Your task to perform on an android device: turn off notifications in google photos Image 0: 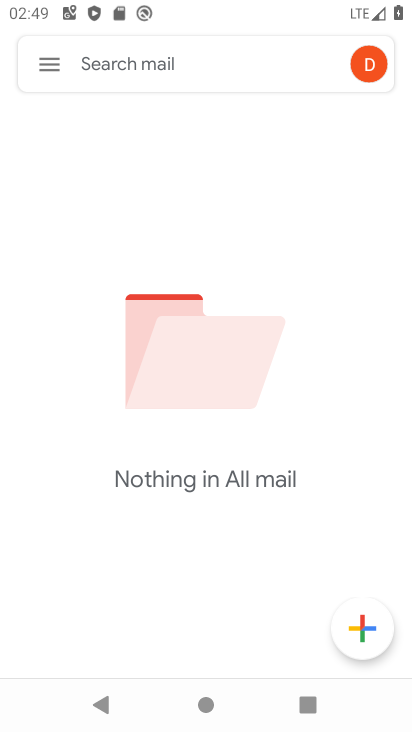
Step 0: drag from (219, 548) to (323, 261)
Your task to perform on an android device: turn off notifications in google photos Image 1: 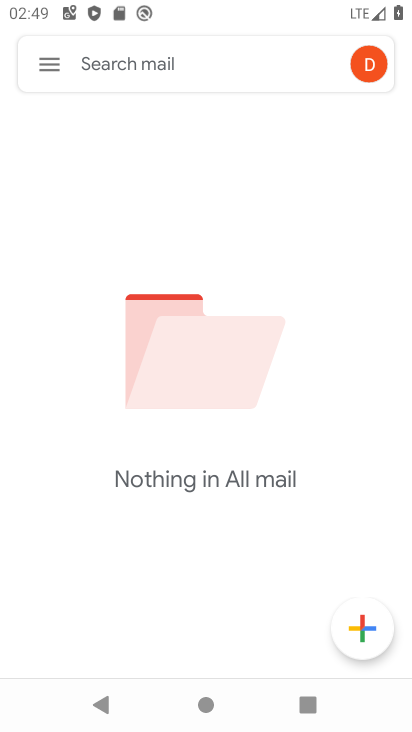
Step 1: press home button
Your task to perform on an android device: turn off notifications in google photos Image 2: 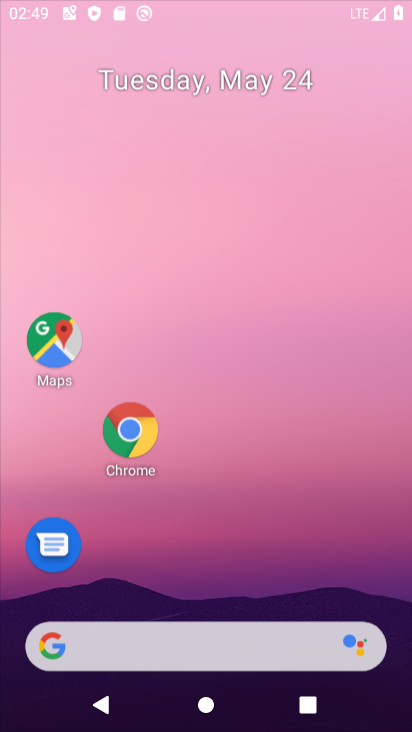
Step 2: drag from (190, 608) to (294, 75)
Your task to perform on an android device: turn off notifications in google photos Image 3: 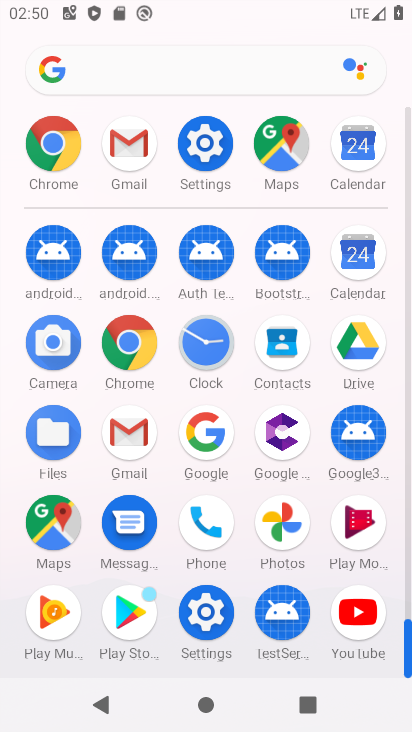
Step 3: click (291, 501)
Your task to perform on an android device: turn off notifications in google photos Image 4: 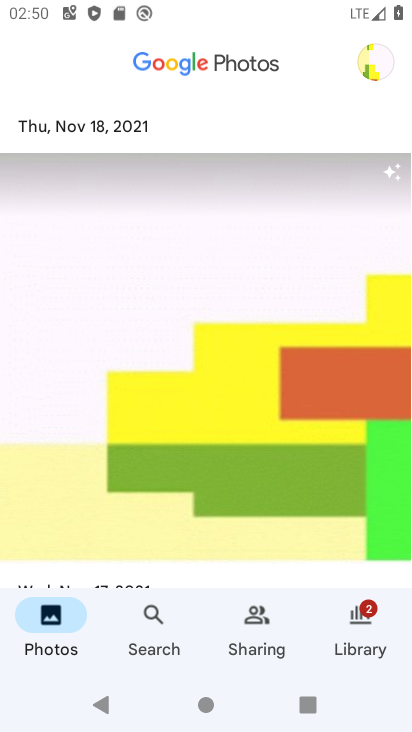
Step 4: press back button
Your task to perform on an android device: turn off notifications in google photos Image 5: 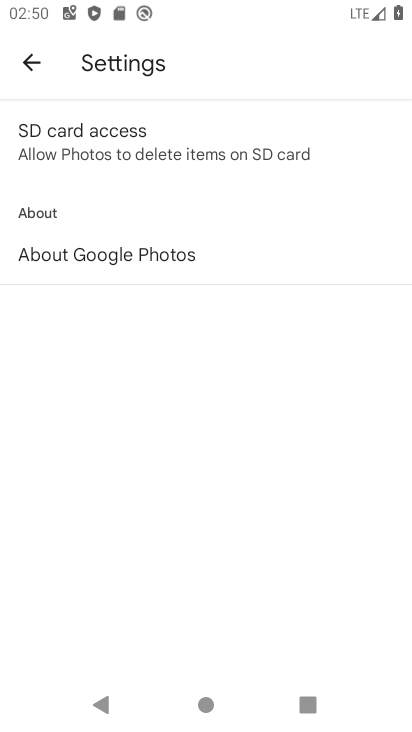
Step 5: press back button
Your task to perform on an android device: turn off notifications in google photos Image 6: 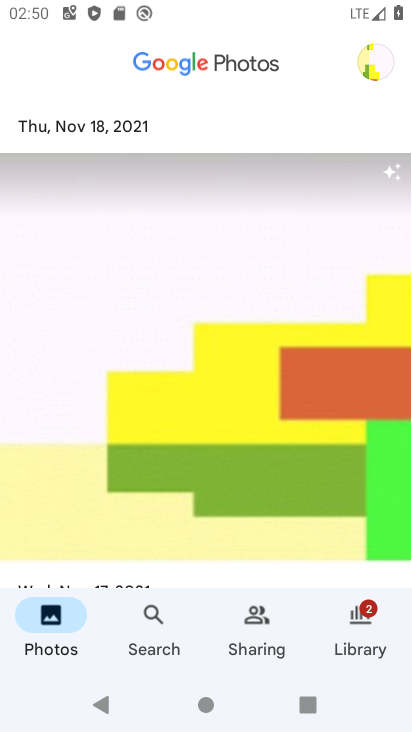
Step 6: click (59, 626)
Your task to perform on an android device: turn off notifications in google photos Image 7: 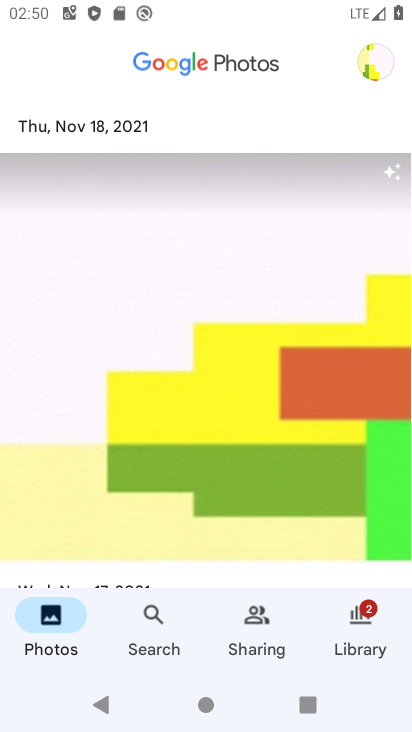
Step 7: drag from (332, 417) to (4, 389)
Your task to perform on an android device: turn off notifications in google photos Image 8: 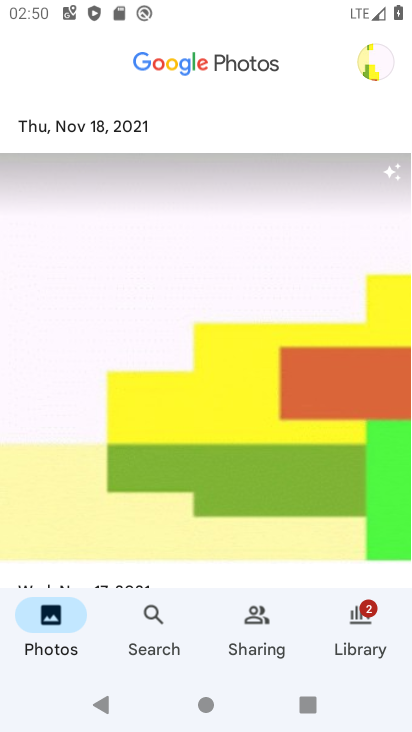
Step 8: click (385, 58)
Your task to perform on an android device: turn off notifications in google photos Image 9: 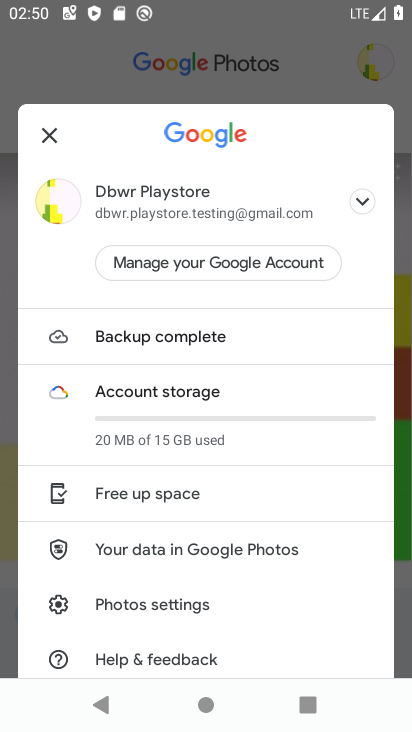
Step 9: drag from (173, 533) to (246, 240)
Your task to perform on an android device: turn off notifications in google photos Image 10: 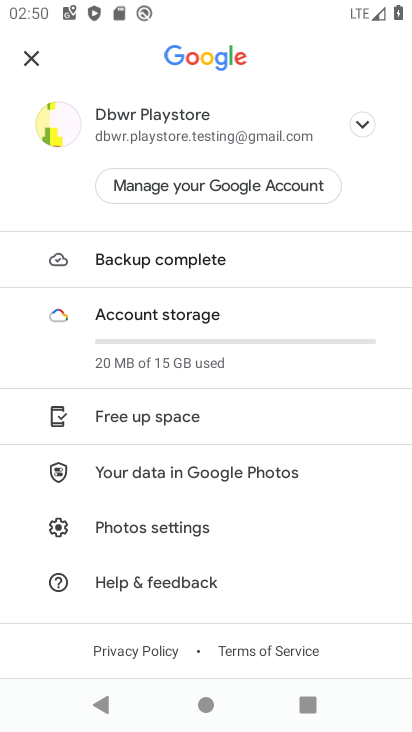
Step 10: click (173, 527)
Your task to perform on an android device: turn off notifications in google photos Image 11: 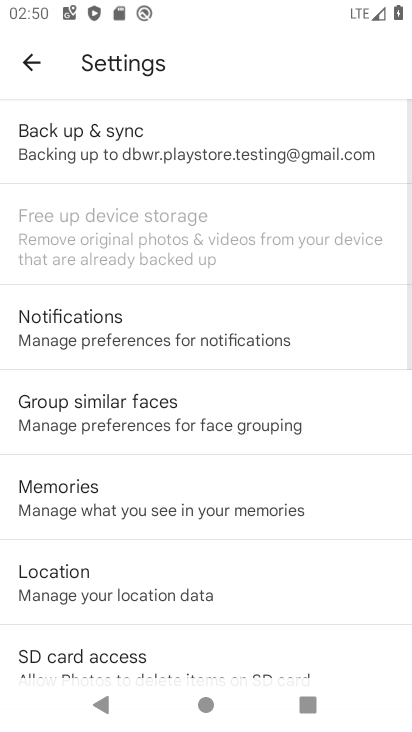
Step 11: drag from (191, 428) to (226, 220)
Your task to perform on an android device: turn off notifications in google photos Image 12: 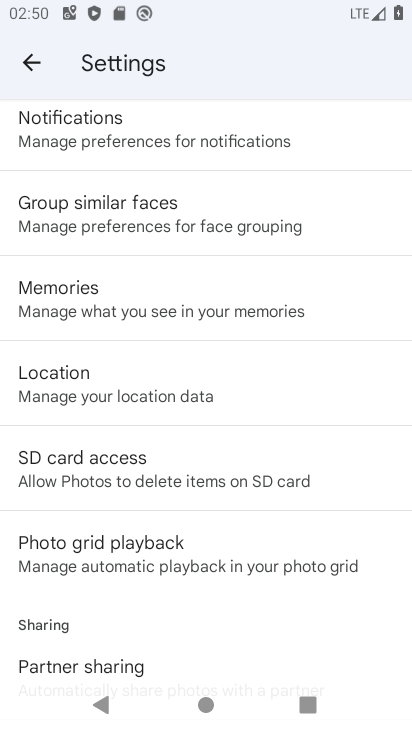
Step 12: click (121, 143)
Your task to perform on an android device: turn off notifications in google photos Image 13: 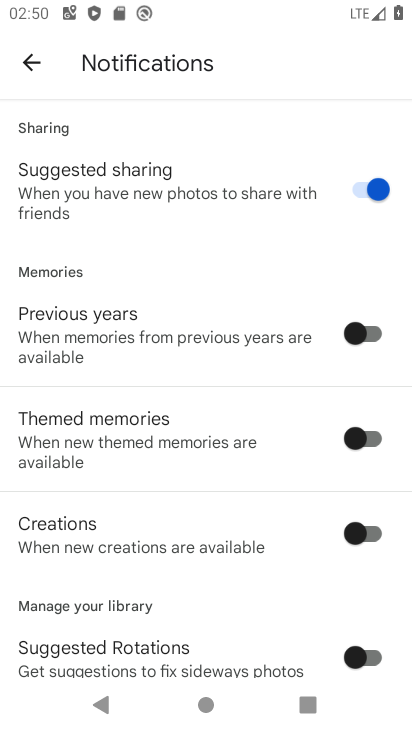
Step 13: drag from (186, 592) to (247, 167)
Your task to perform on an android device: turn off notifications in google photos Image 14: 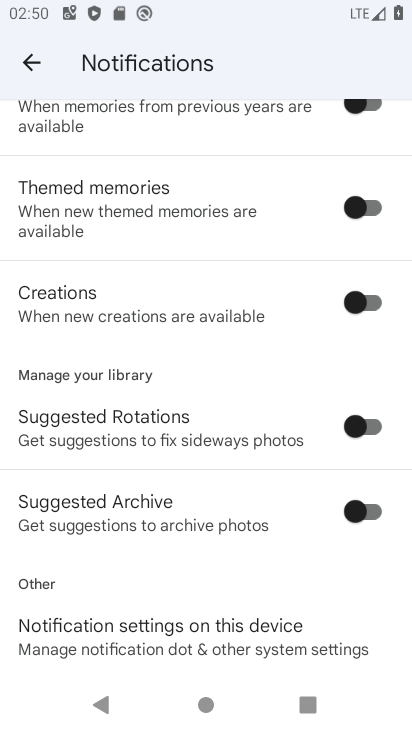
Step 14: click (143, 636)
Your task to perform on an android device: turn off notifications in google photos Image 15: 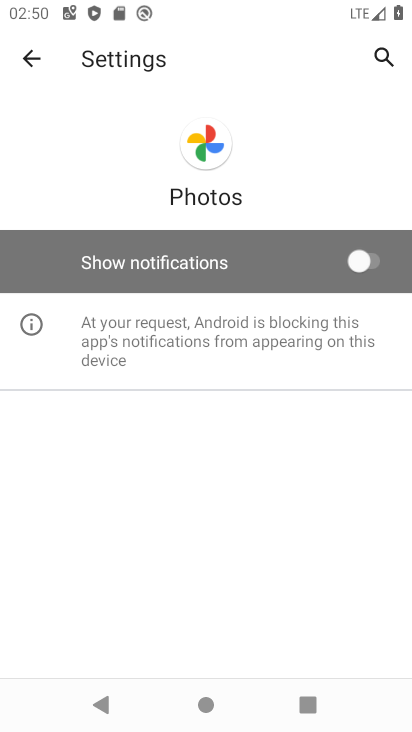
Step 15: task complete